Your task to perform on an android device: choose inbox layout in the gmail app Image 0: 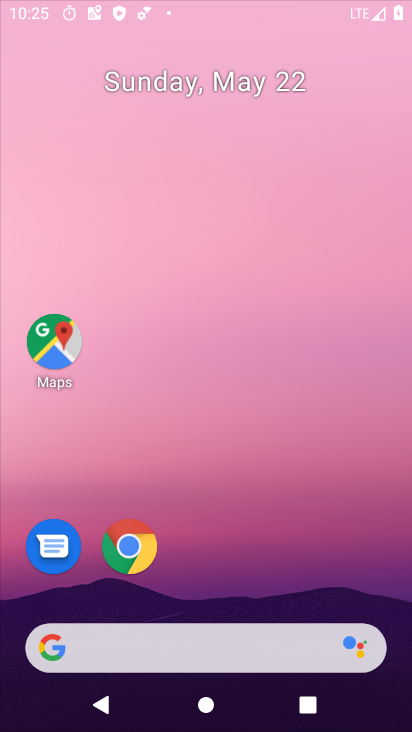
Step 0: click (392, 17)
Your task to perform on an android device: choose inbox layout in the gmail app Image 1: 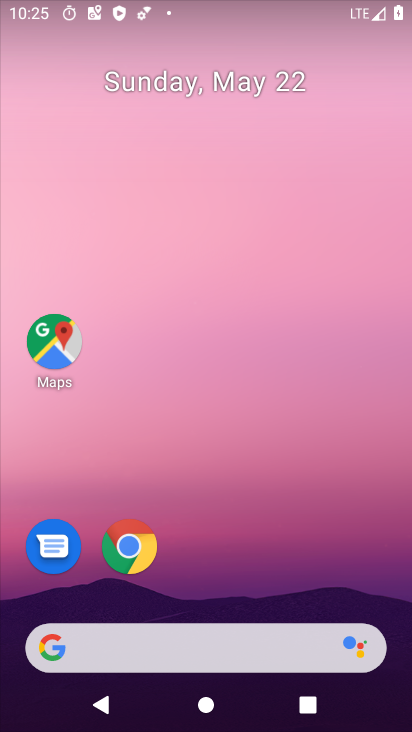
Step 1: drag from (215, 572) to (274, 134)
Your task to perform on an android device: choose inbox layout in the gmail app Image 2: 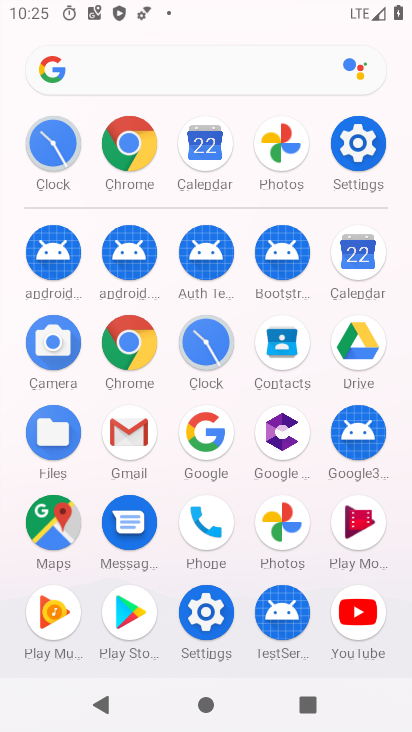
Step 2: click (119, 425)
Your task to perform on an android device: choose inbox layout in the gmail app Image 3: 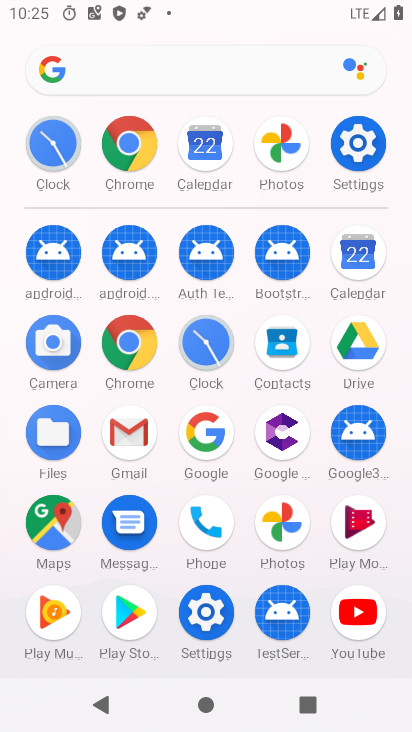
Step 3: click (119, 425)
Your task to perform on an android device: choose inbox layout in the gmail app Image 4: 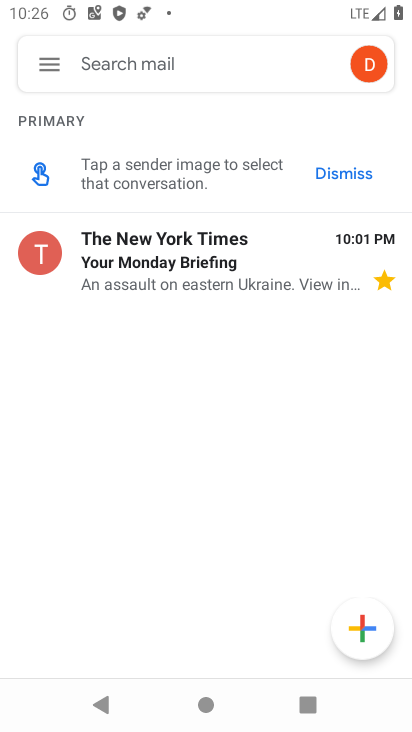
Step 4: click (47, 75)
Your task to perform on an android device: choose inbox layout in the gmail app Image 5: 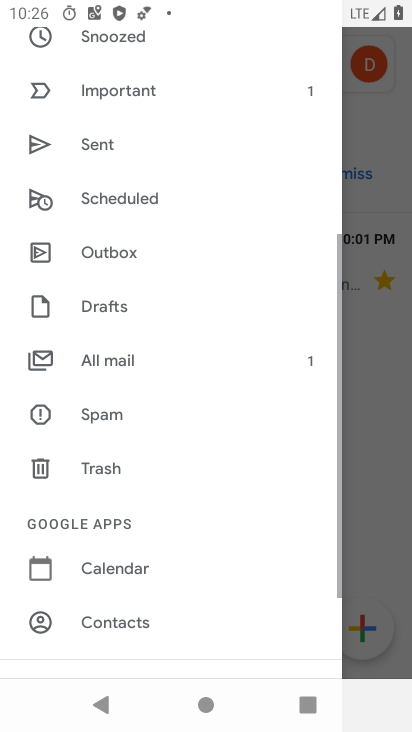
Step 5: drag from (204, 570) to (271, 1)
Your task to perform on an android device: choose inbox layout in the gmail app Image 6: 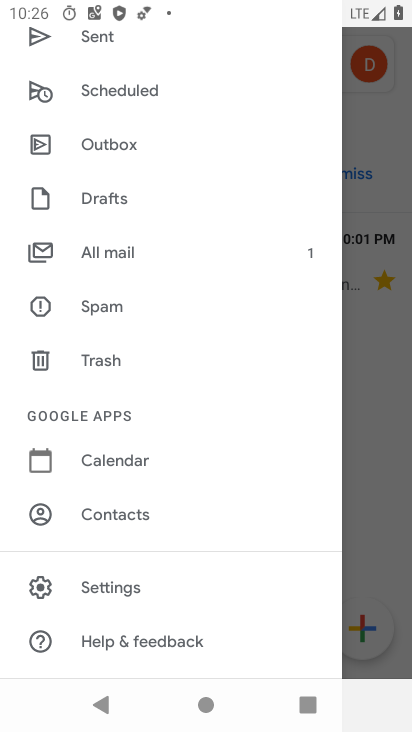
Step 6: drag from (153, 181) to (320, 709)
Your task to perform on an android device: choose inbox layout in the gmail app Image 7: 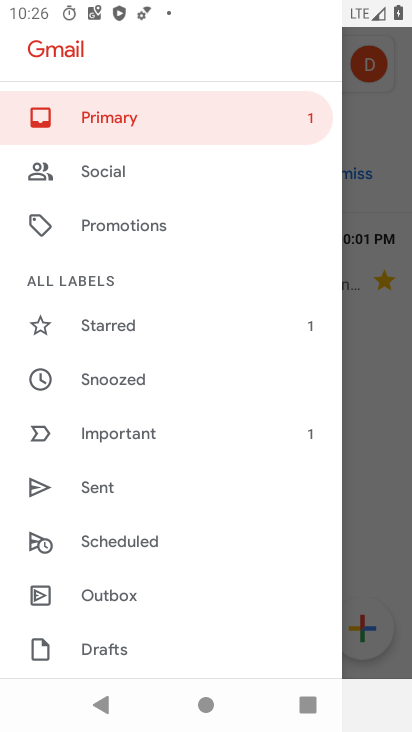
Step 7: click (134, 116)
Your task to perform on an android device: choose inbox layout in the gmail app Image 8: 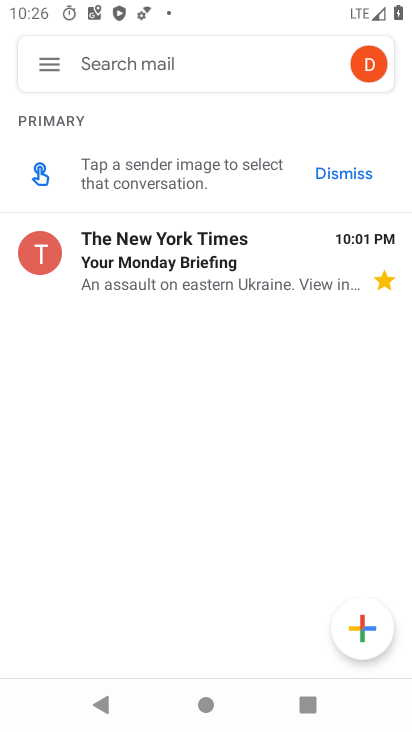
Step 8: task complete